Your task to perform on an android device: toggle improve location accuracy Image 0: 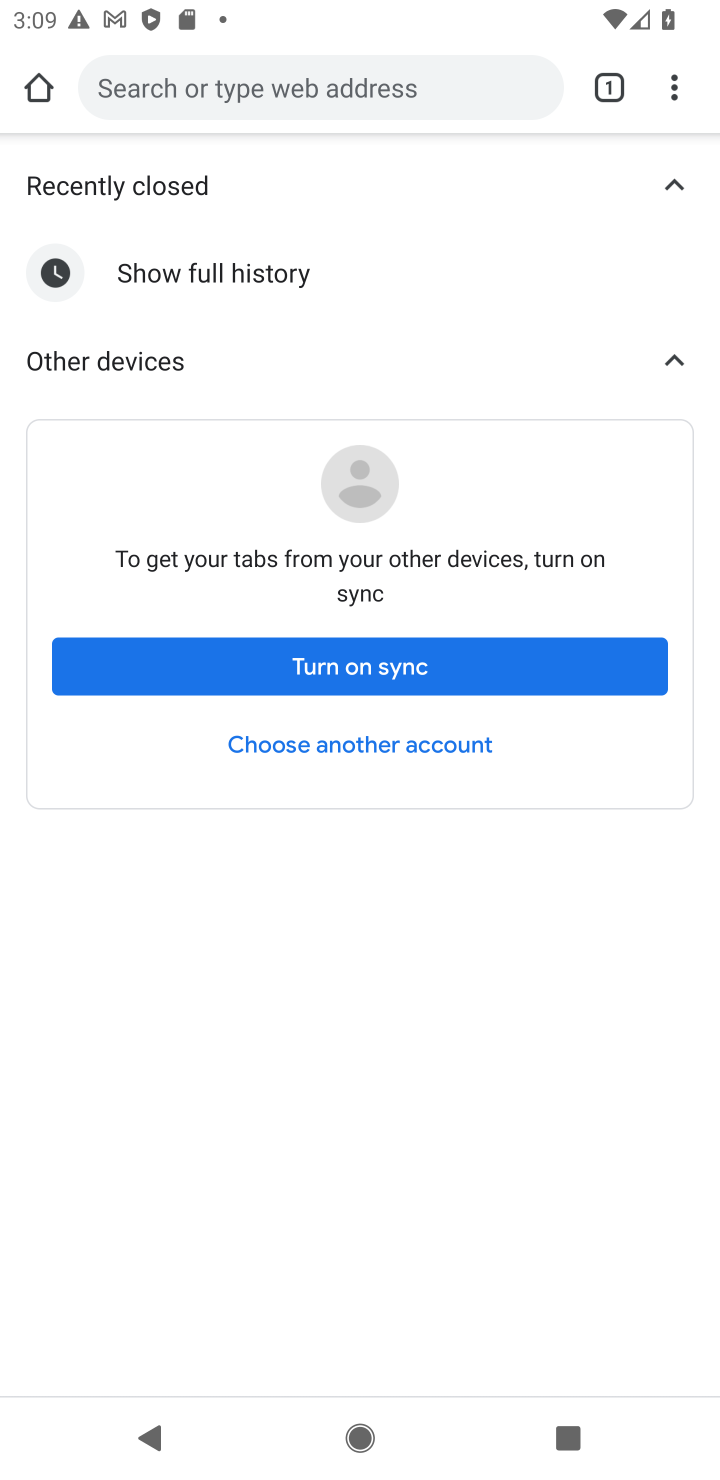
Step 0: press back button
Your task to perform on an android device: toggle improve location accuracy Image 1: 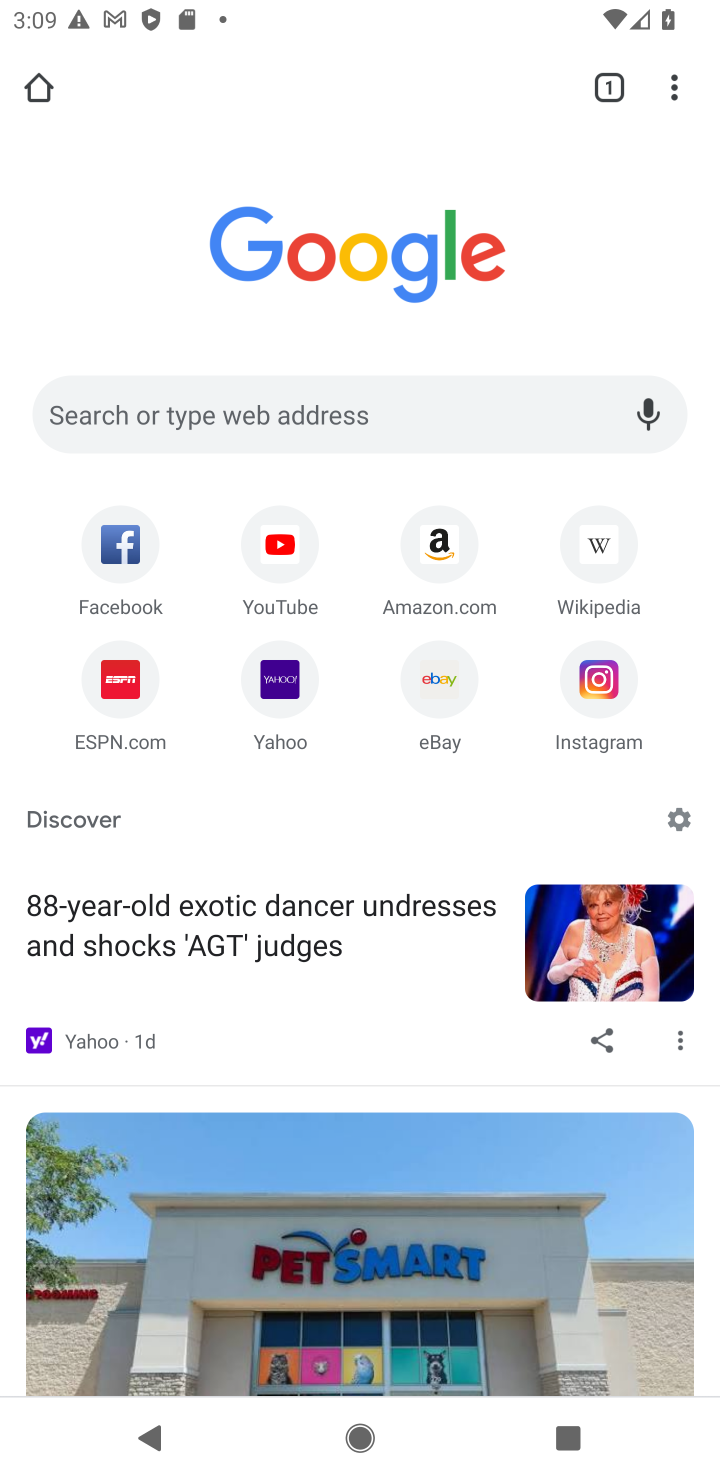
Step 1: press back button
Your task to perform on an android device: toggle improve location accuracy Image 2: 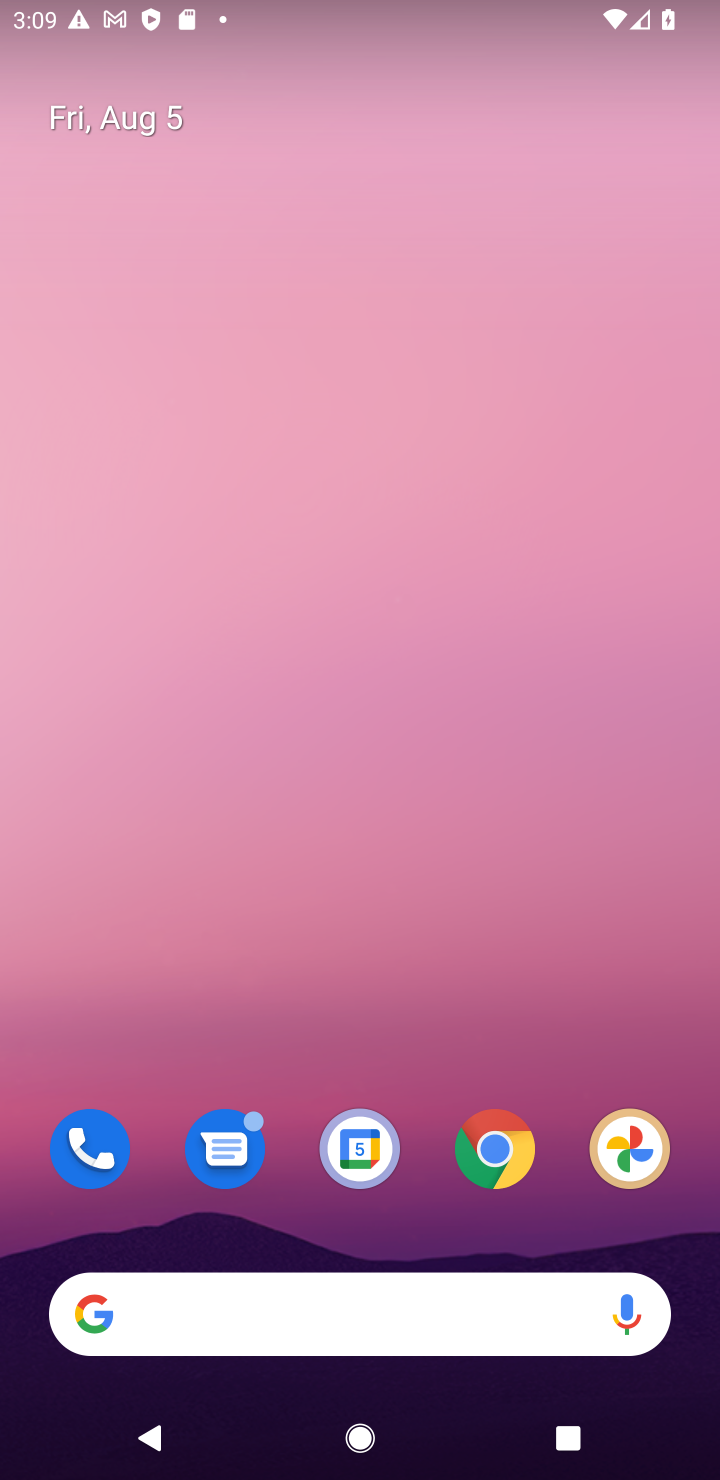
Step 2: drag from (259, 1258) to (373, 131)
Your task to perform on an android device: toggle improve location accuracy Image 3: 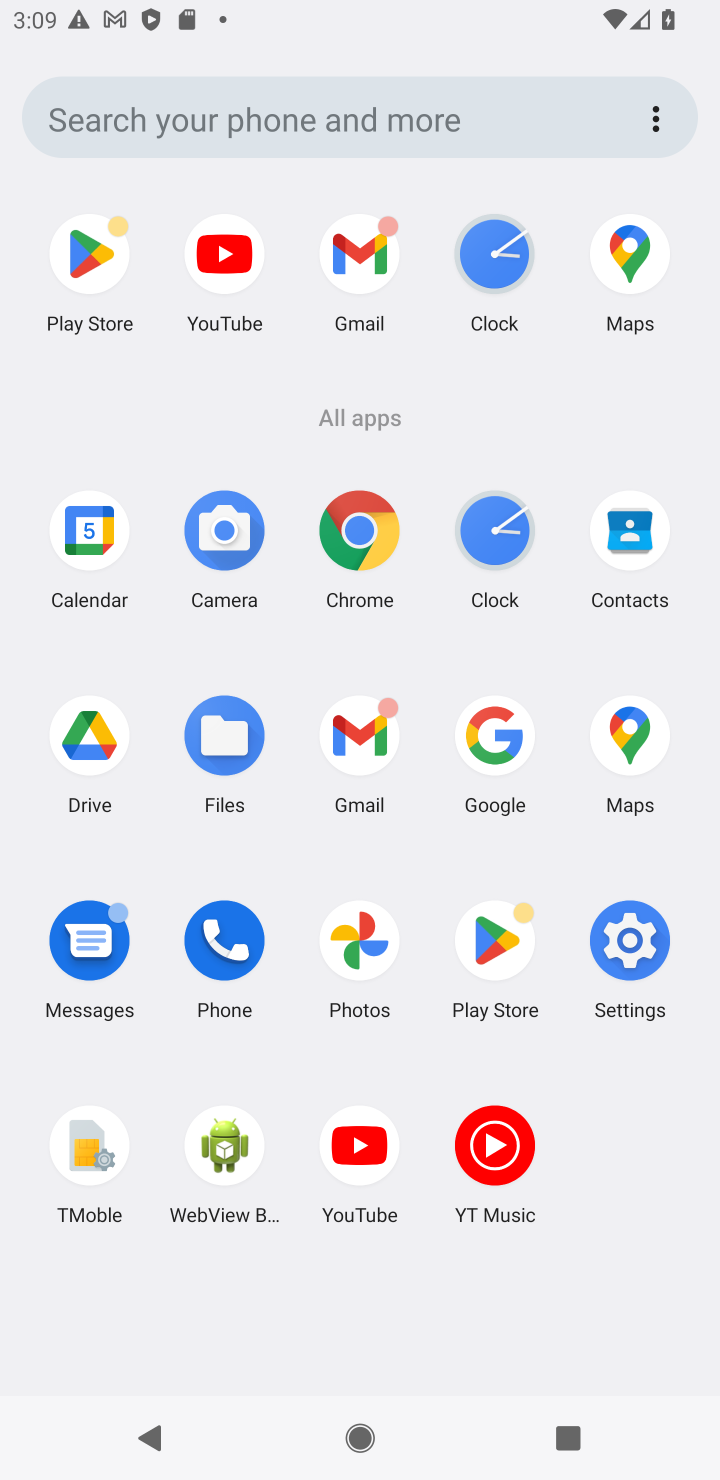
Step 3: click (621, 956)
Your task to perform on an android device: toggle improve location accuracy Image 4: 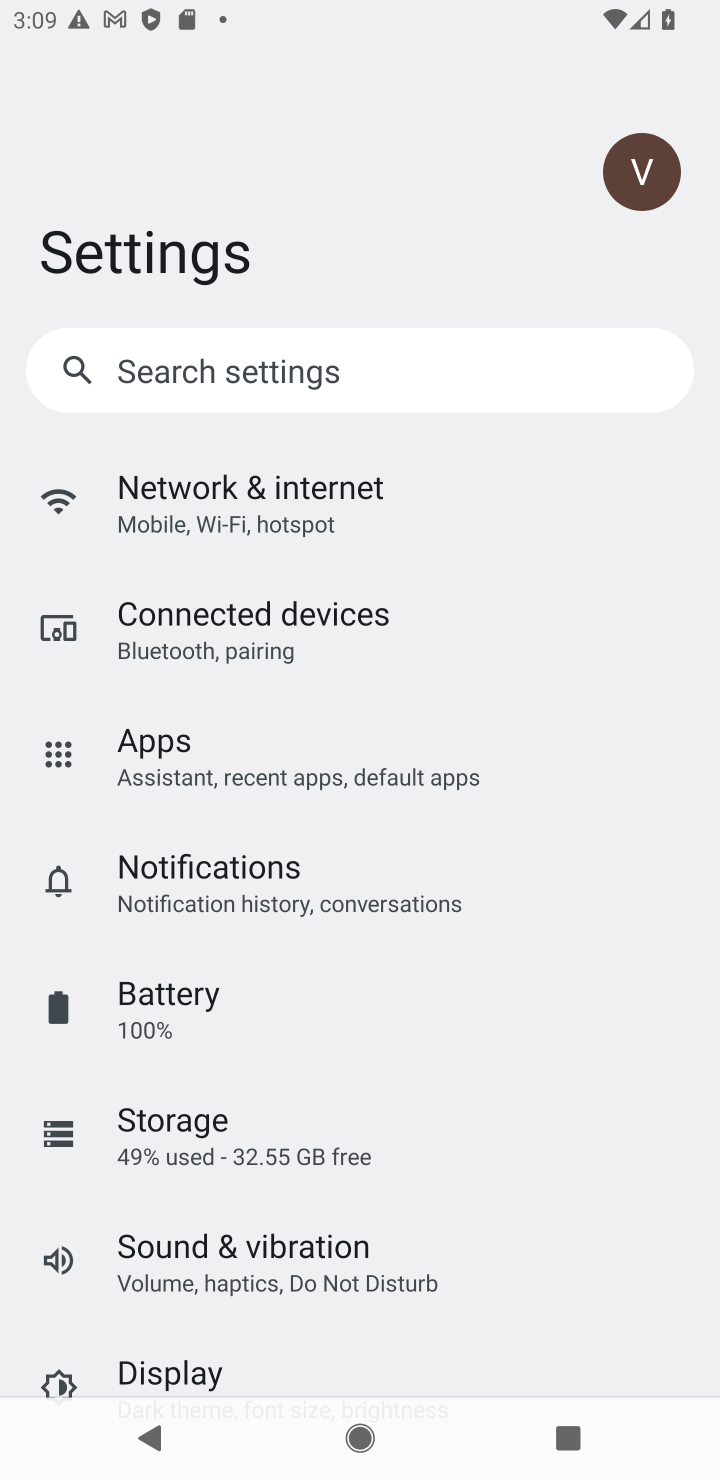
Step 4: drag from (193, 1242) to (365, 221)
Your task to perform on an android device: toggle improve location accuracy Image 5: 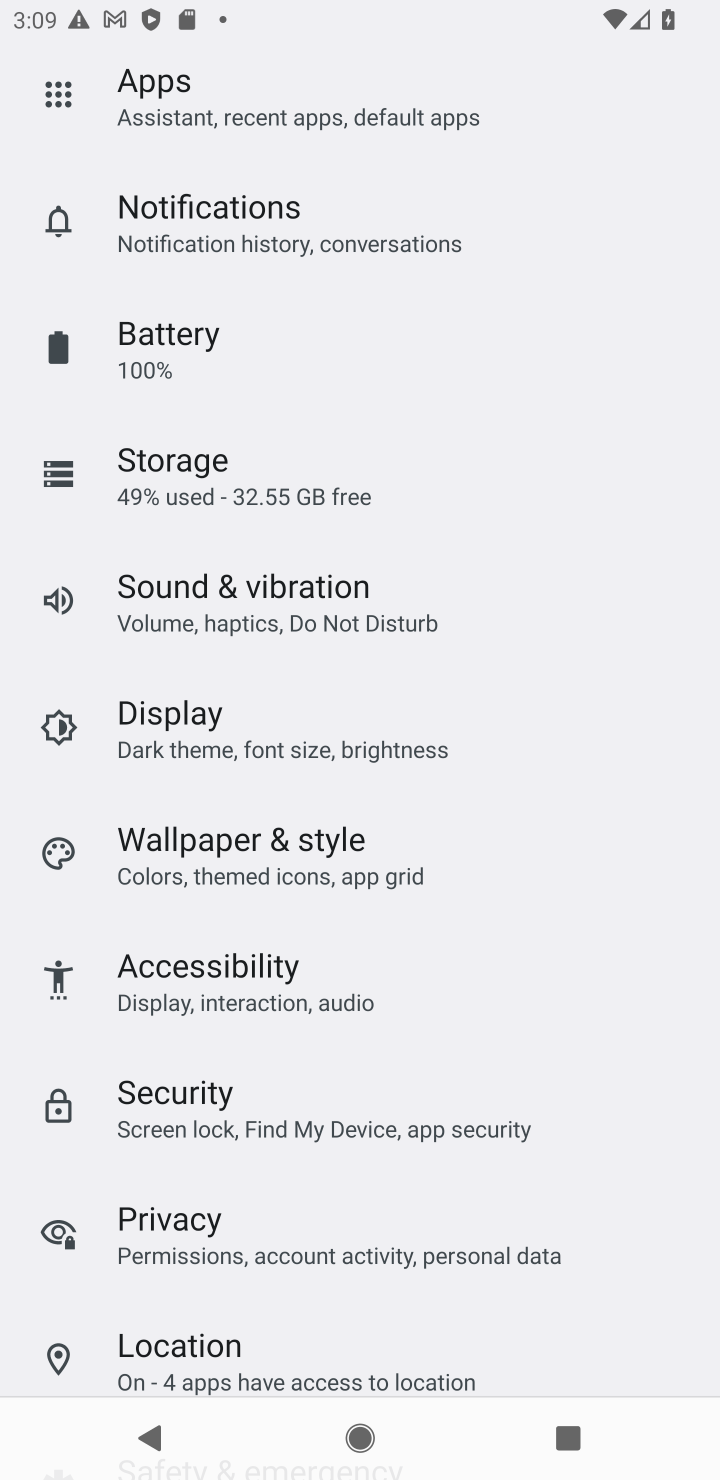
Step 5: click (231, 1363)
Your task to perform on an android device: toggle improve location accuracy Image 6: 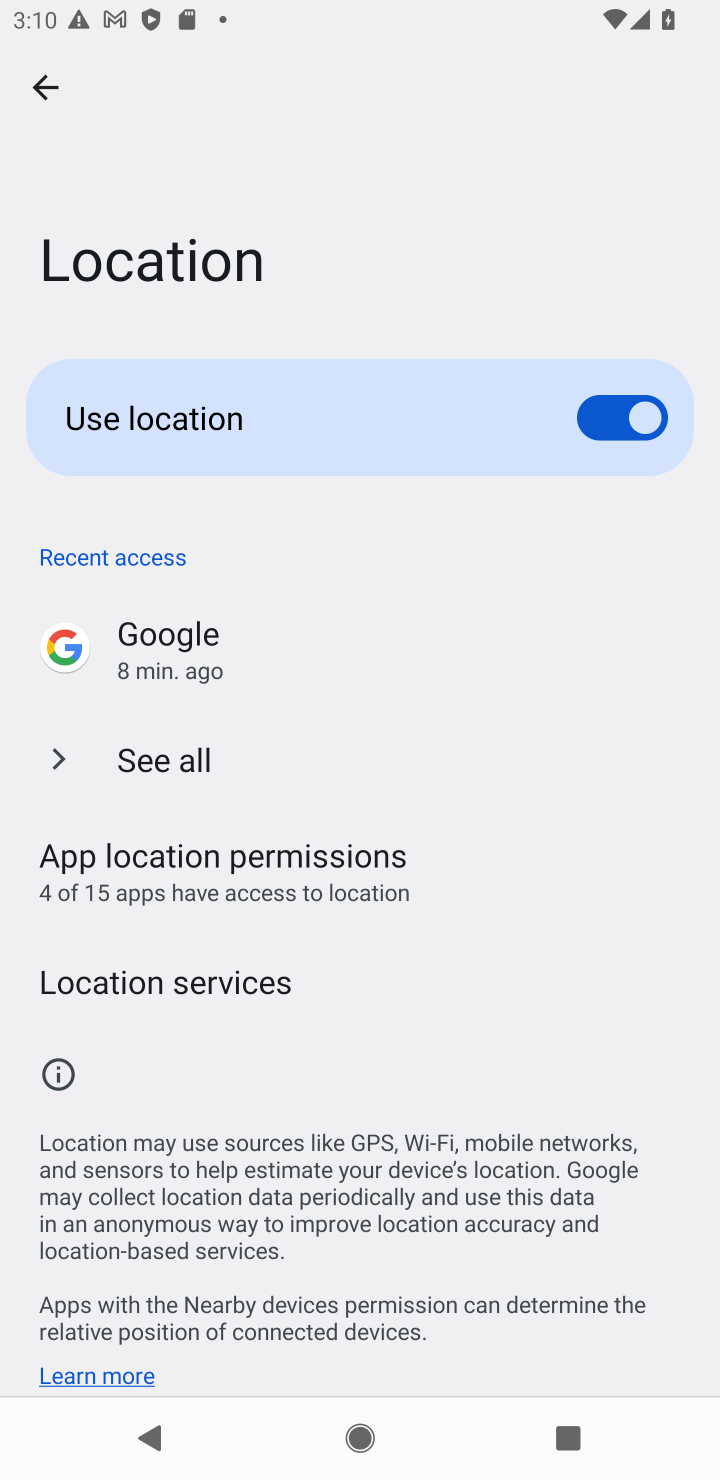
Step 6: click (300, 865)
Your task to perform on an android device: toggle improve location accuracy Image 7: 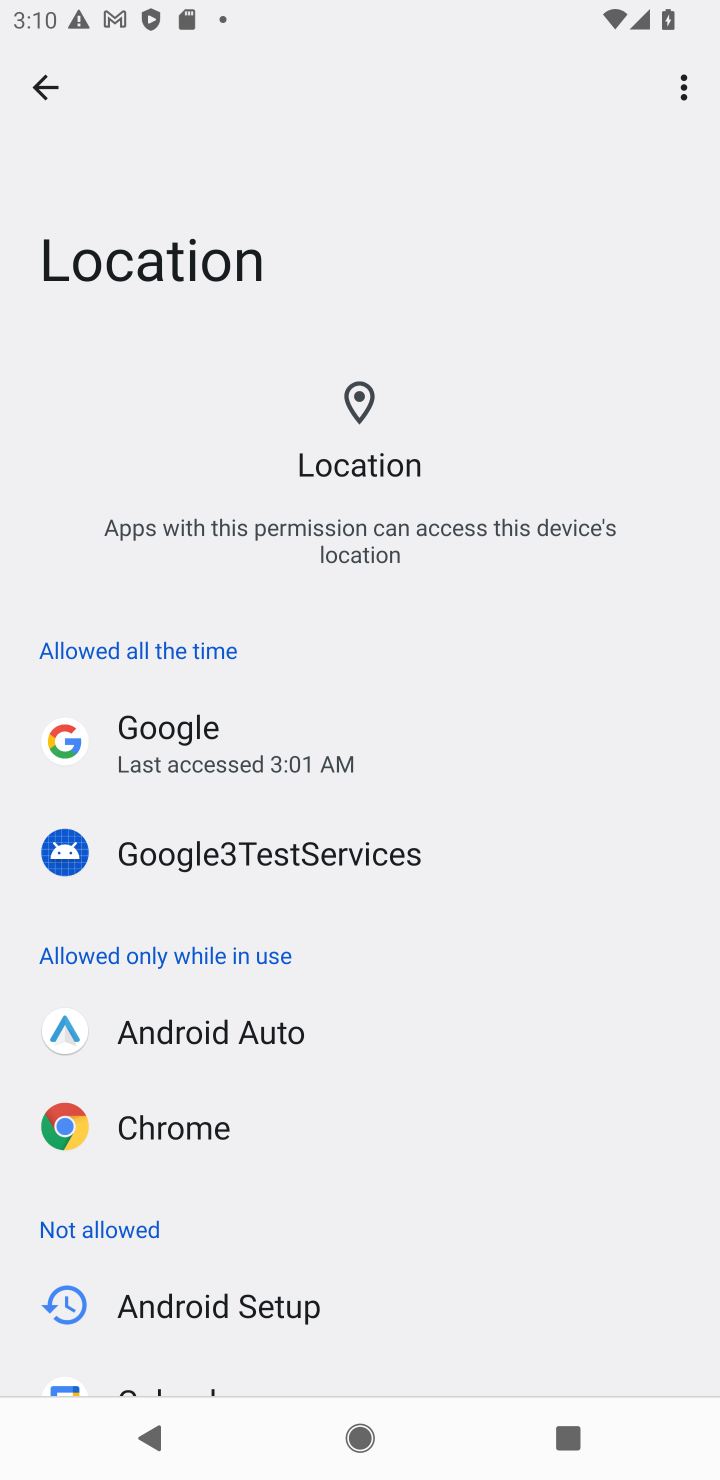
Step 7: click (32, 59)
Your task to perform on an android device: toggle improve location accuracy Image 8: 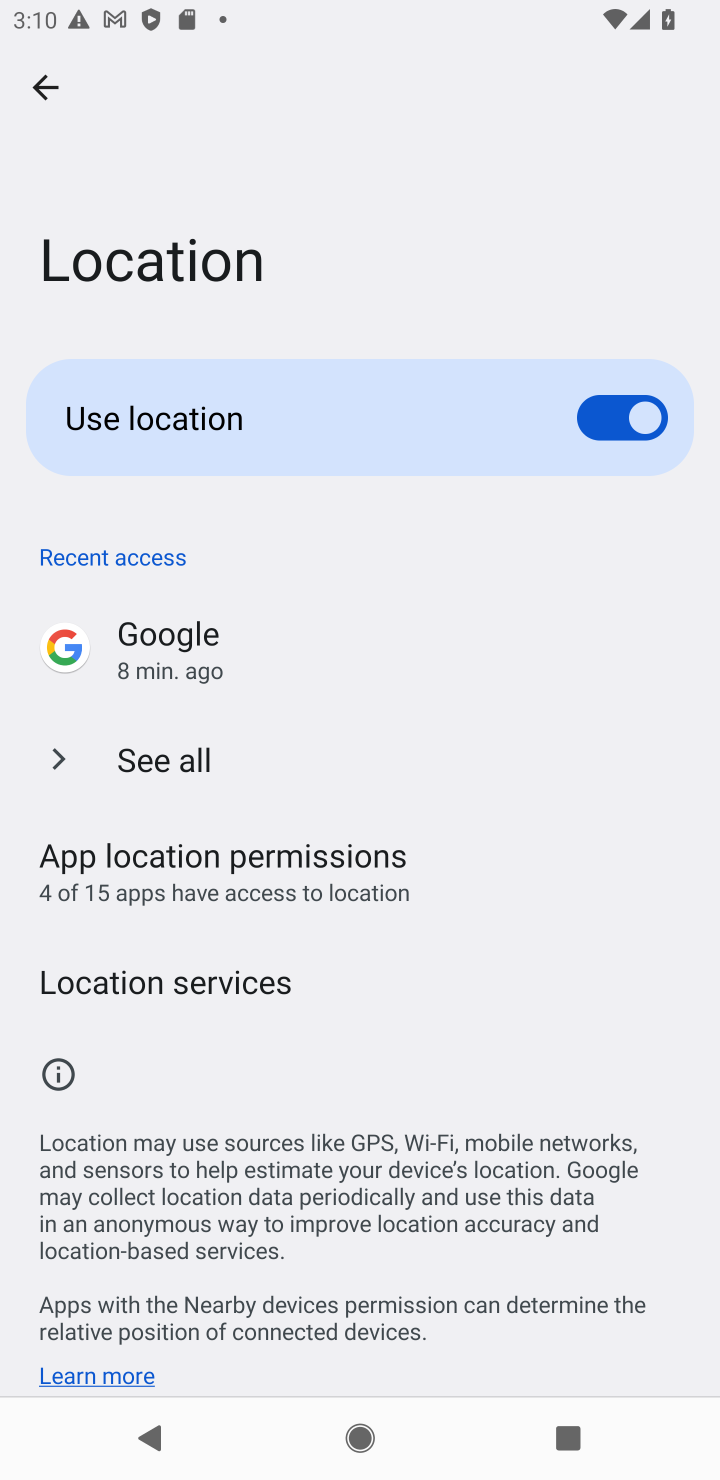
Step 8: click (122, 983)
Your task to perform on an android device: toggle improve location accuracy Image 9: 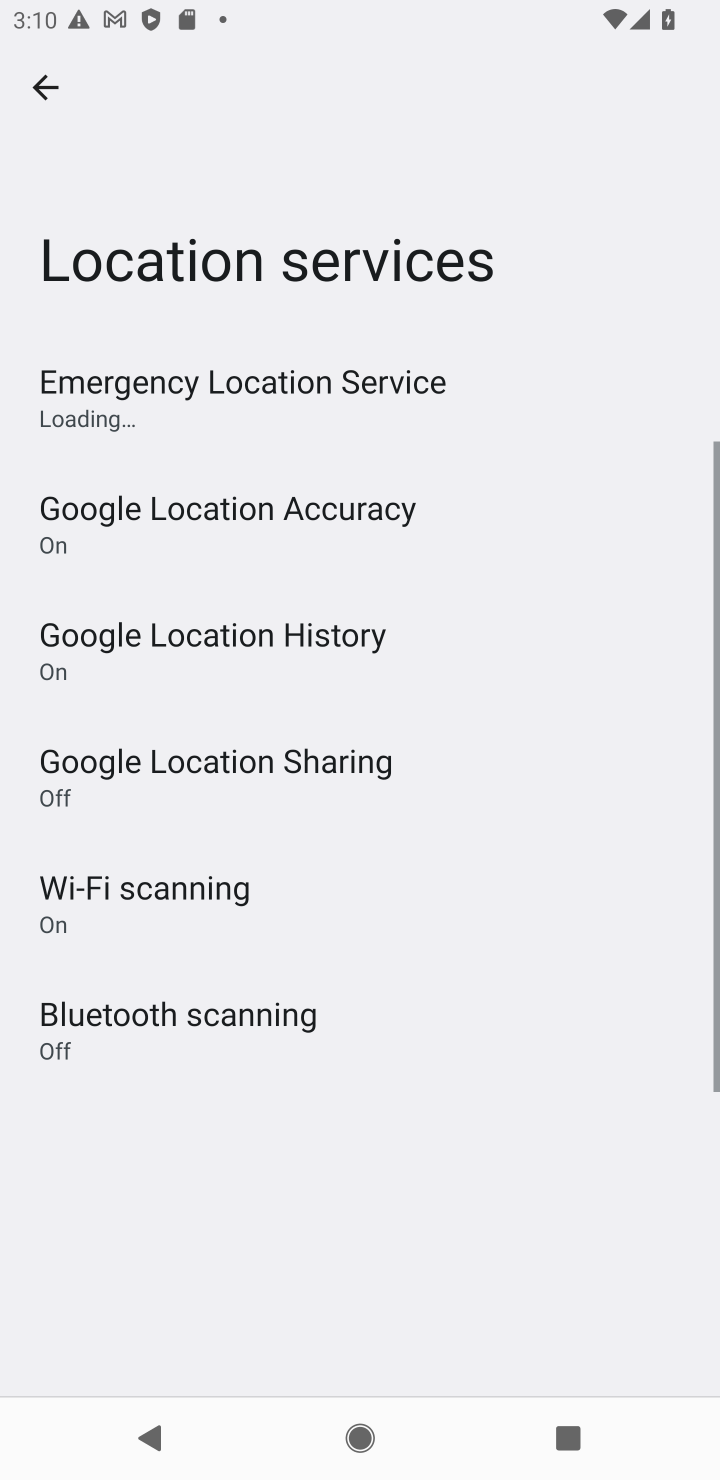
Step 9: click (256, 508)
Your task to perform on an android device: toggle improve location accuracy Image 10: 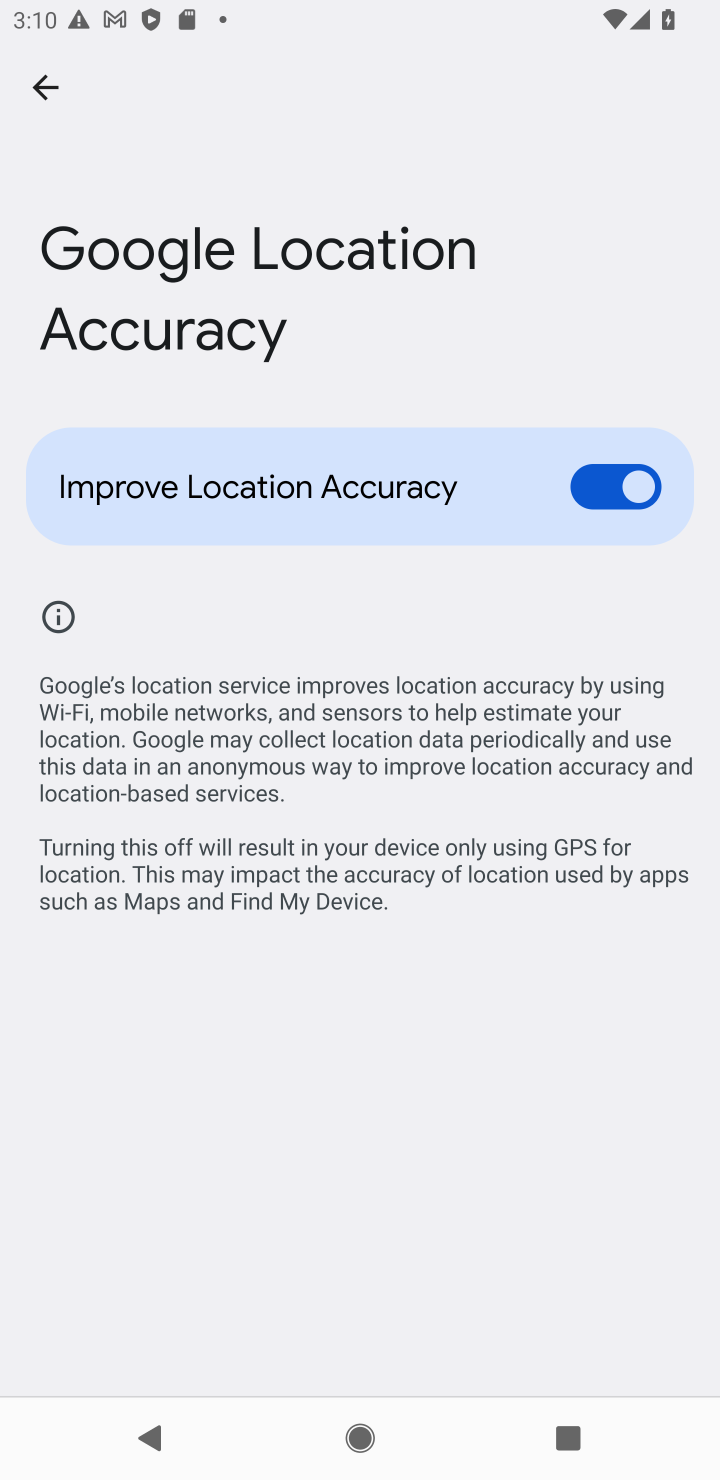
Step 10: click (593, 494)
Your task to perform on an android device: toggle improve location accuracy Image 11: 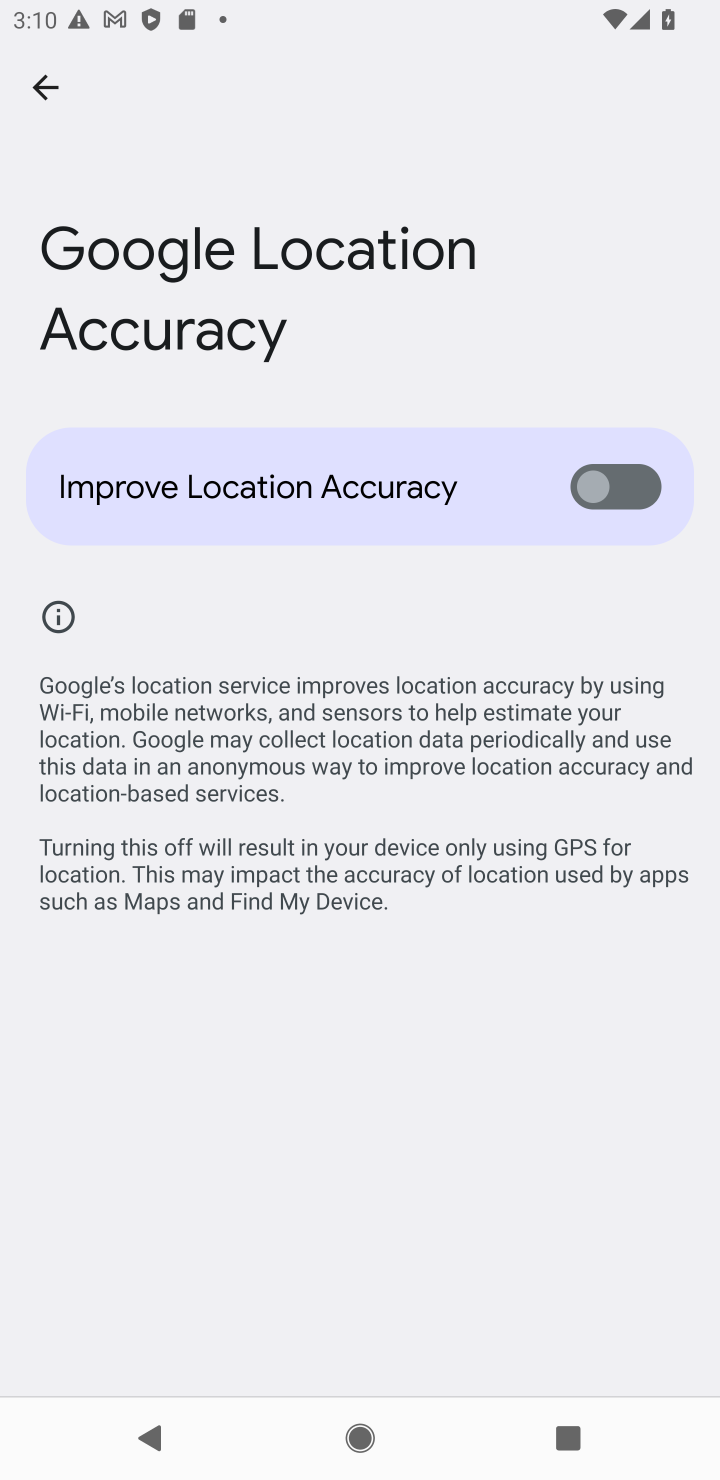
Step 11: task complete